Your task to perform on an android device: turn off priority inbox in the gmail app Image 0: 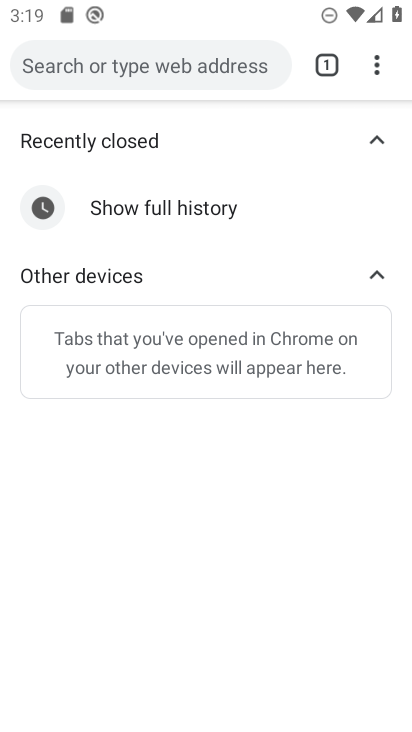
Step 0: press home button
Your task to perform on an android device: turn off priority inbox in the gmail app Image 1: 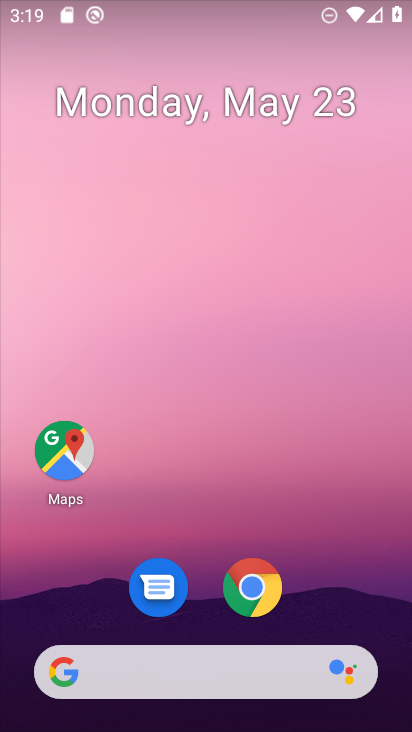
Step 1: drag from (315, 616) to (106, 10)
Your task to perform on an android device: turn off priority inbox in the gmail app Image 2: 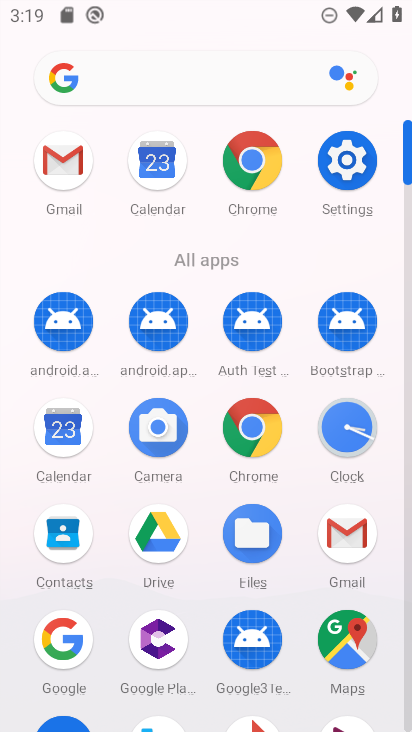
Step 2: click (341, 543)
Your task to perform on an android device: turn off priority inbox in the gmail app Image 3: 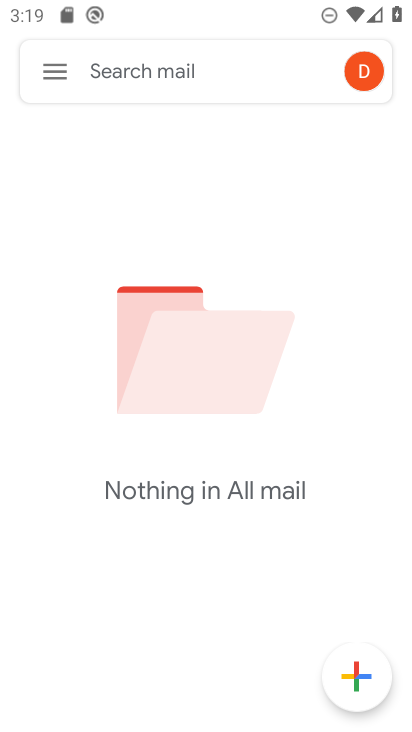
Step 3: click (52, 67)
Your task to perform on an android device: turn off priority inbox in the gmail app Image 4: 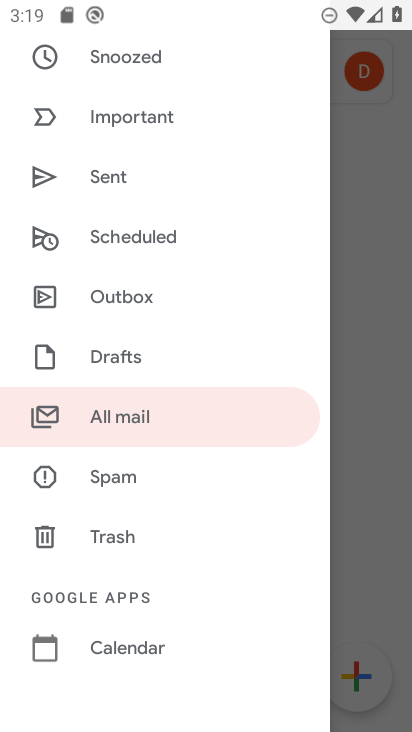
Step 4: drag from (153, 591) to (243, 30)
Your task to perform on an android device: turn off priority inbox in the gmail app Image 5: 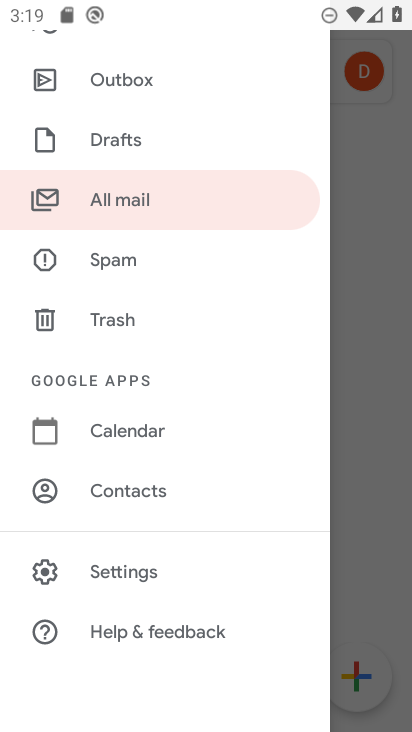
Step 5: click (127, 575)
Your task to perform on an android device: turn off priority inbox in the gmail app Image 6: 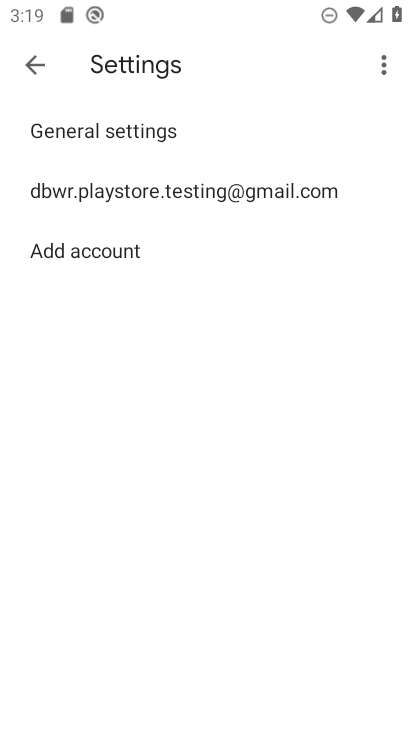
Step 6: click (150, 195)
Your task to perform on an android device: turn off priority inbox in the gmail app Image 7: 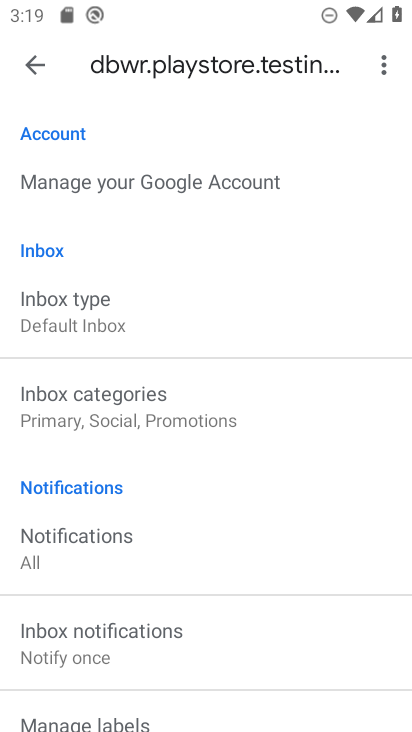
Step 7: click (120, 320)
Your task to perform on an android device: turn off priority inbox in the gmail app Image 8: 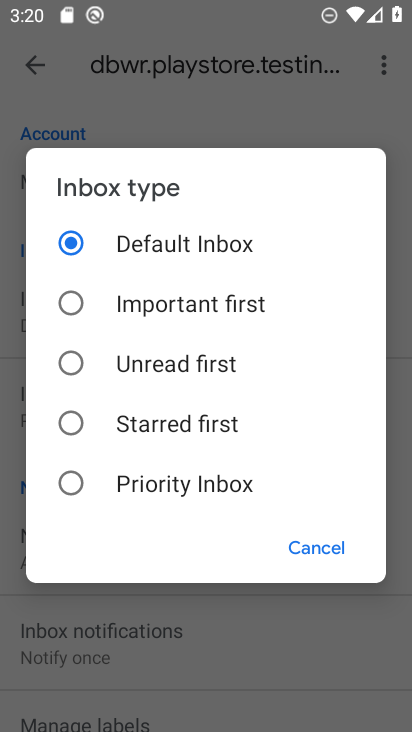
Step 8: task complete